Your task to perform on an android device: Check the settings for the Google Play Movies app Image 0: 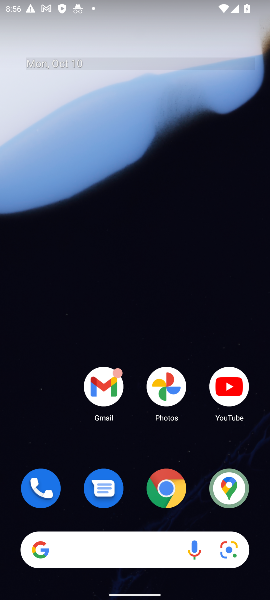
Step 0: drag from (142, 453) to (120, 113)
Your task to perform on an android device: Check the settings for the Google Play Movies app Image 1: 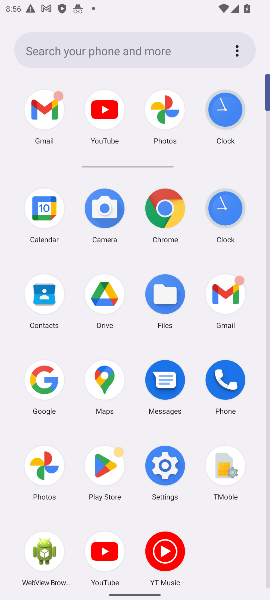
Step 1: task complete